Your task to perform on an android device: What is the news today? Image 0: 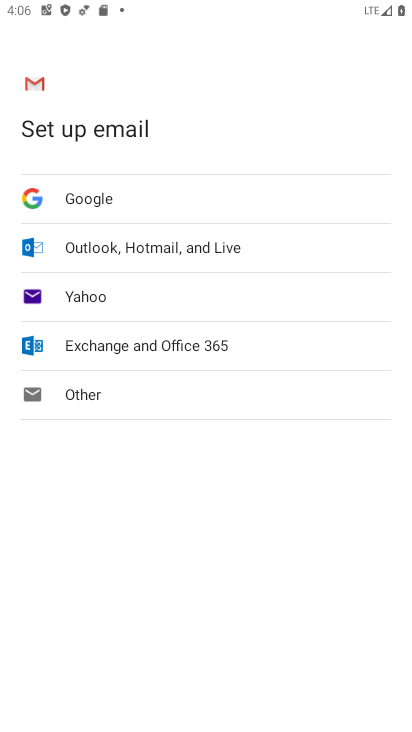
Step 0: press home button
Your task to perform on an android device: What is the news today? Image 1: 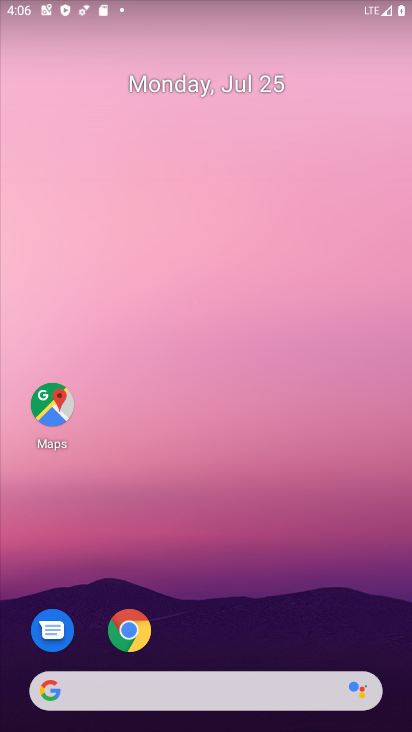
Step 1: drag from (283, 633) to (242, 44)
Your task to perform on an android device: What is the news today? Image 2: 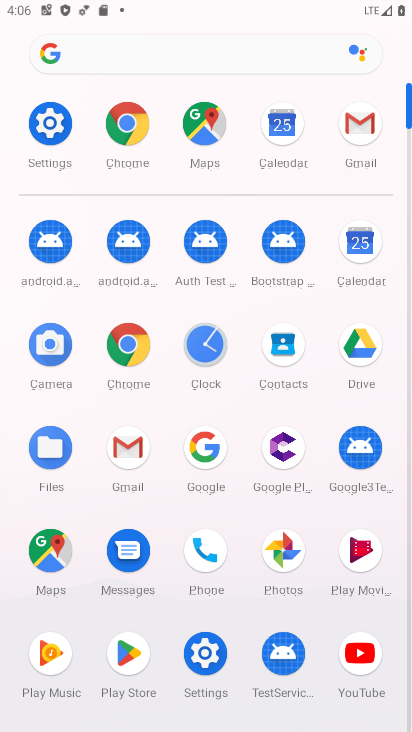
Step 2: click (124, 128)
Your task to perform on an android device: What is the news today? Image 3: 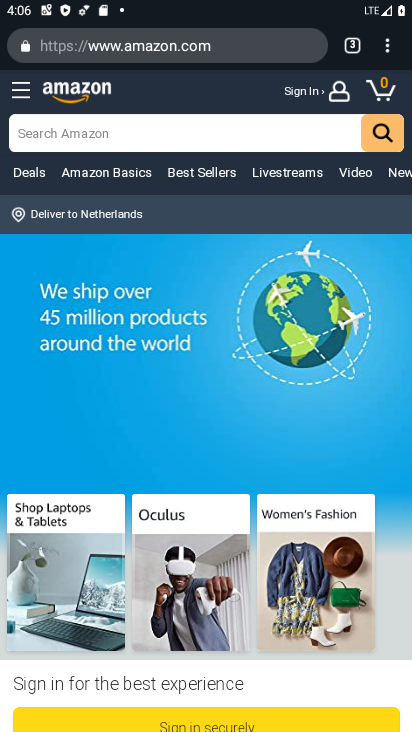
Step 3: click (204, 40)
Your task to perform on an android device: What is the news today? Image 4: 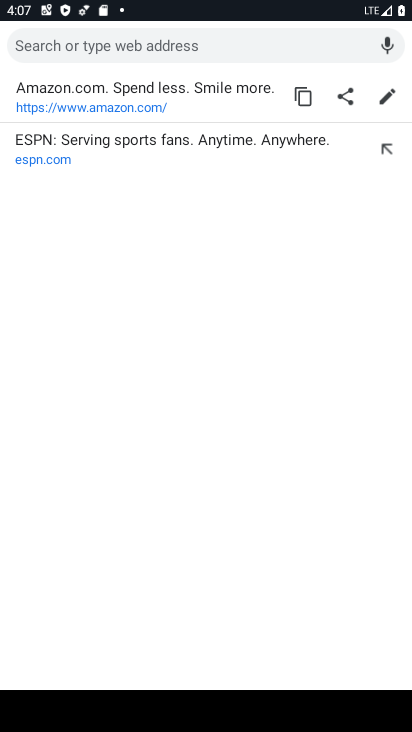
Step 4: type "What is the news today?"
Your task to perform on an android device: What is the news today? Image 5: 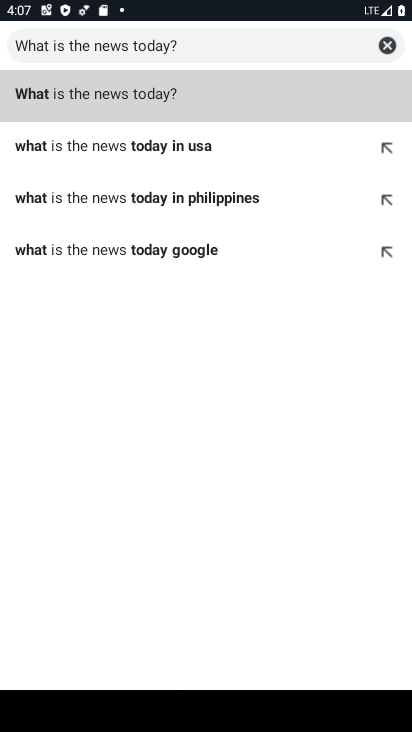
Step 5: click (313, 106)
Your task to perform on an android device: What is the news today? Image 6: 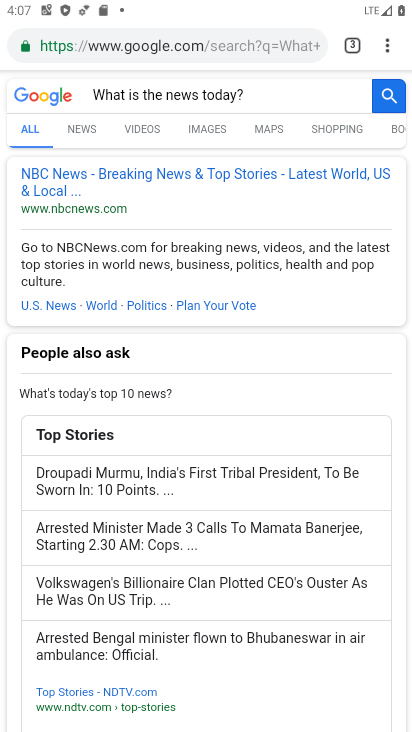
Step 6: task complete